Your task to perform on an android device: Open battery settings Image 0: 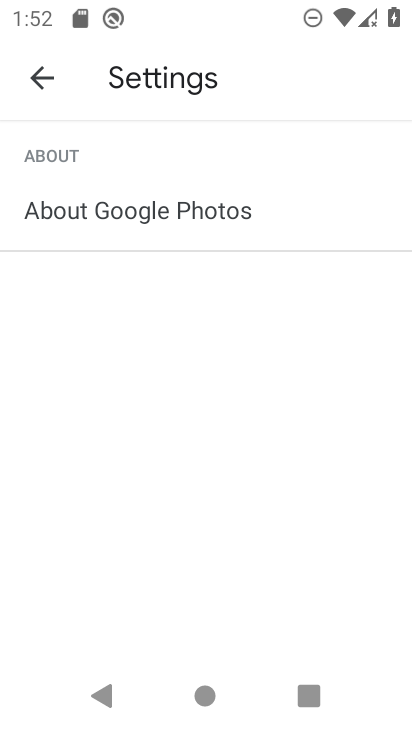
Step 0: drag from (372, 698) to (373, 329)
Your task to perform on an android device: Open battery settings Image 1: 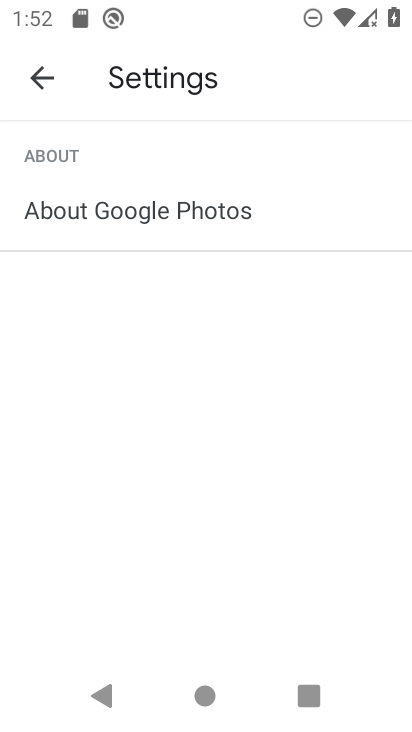
Step 1: click (26, 74)
Your task to perform on an android device: Open battery settings Image 2: 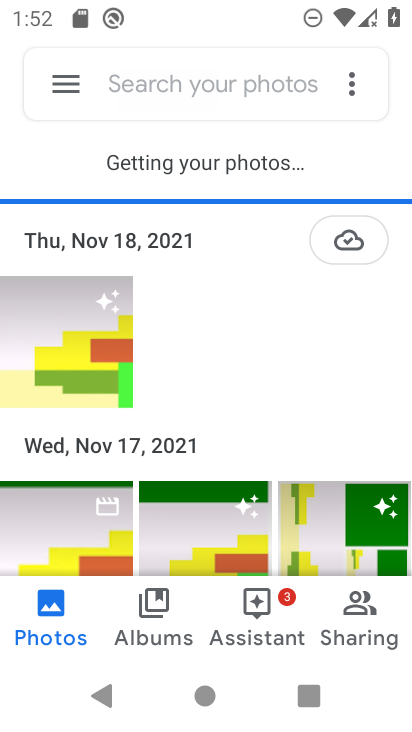
Step 2: press home button
Your task to perform on an android device: Open battery settings Image 3: 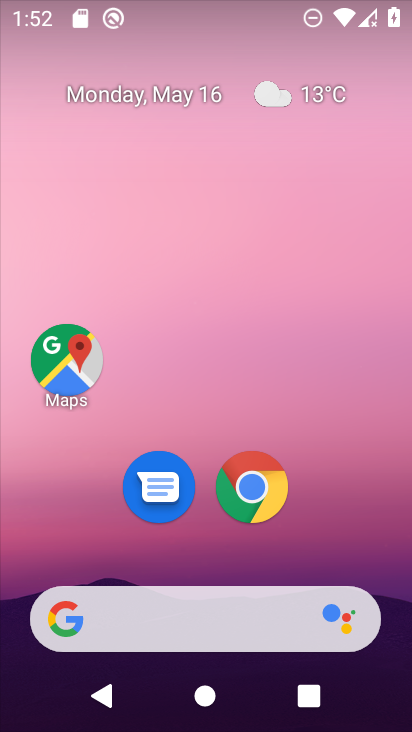
Step 3: drag from (378, 524) to (358, 208)
Your task to perform on an android device: Open battery settings Image 4: 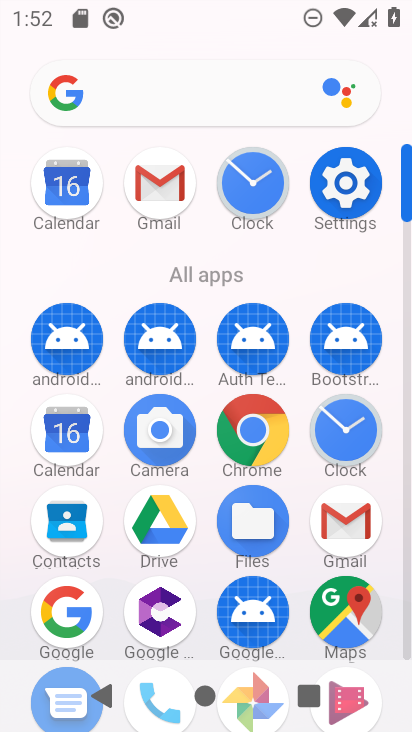
Step 4: click (321, 197)
Your task to perform on an android device: Open battery settings Image 5: 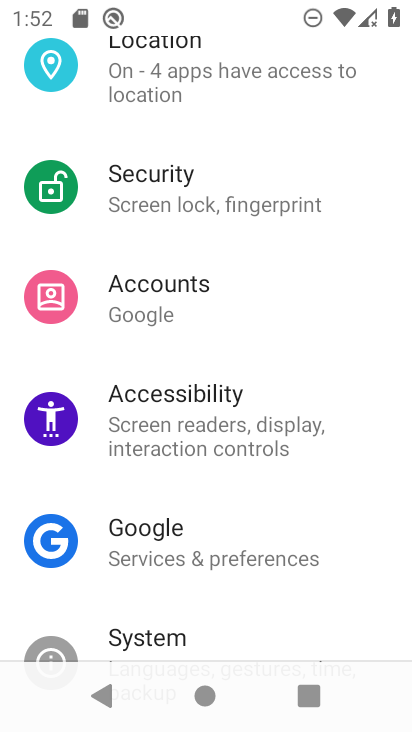
Step 5: drag from (252, 606) to (237, 331)
Your task to perform on an android device: Open battery settings Image 6: 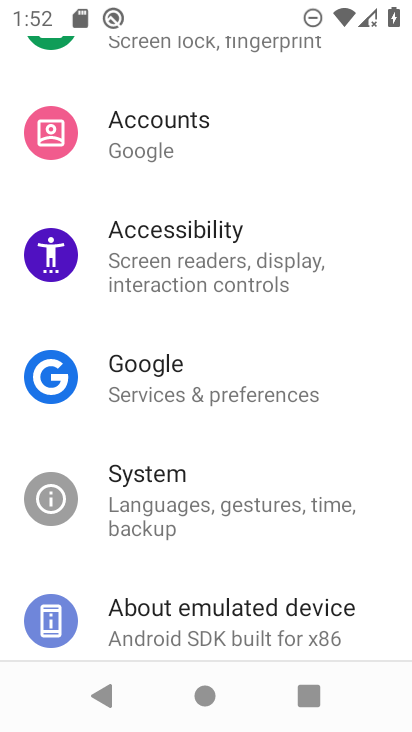
Step 6: drag from (231, 621) to (246, 367)
Your task to perform on an android device: Open battery settings Image 7: 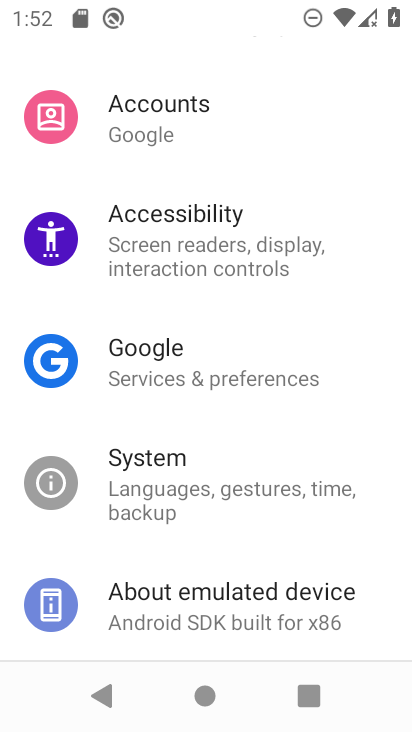
Step 7: drag from (223, 633) to (204, 422)
Your task to perform on an android device: Open battery settings Image 8: 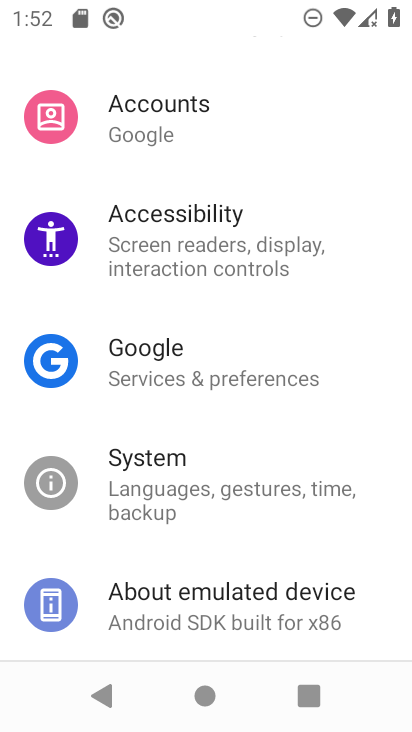
Step 8: drag from (208, 238) to (245, 572)
Your task to perform on an android device: Open battery settings Image 9: 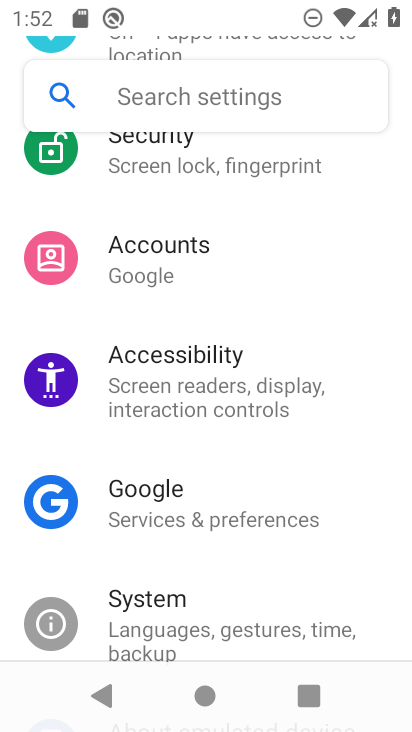
Step 9: drag from (257, 288) to (269, 509)
Your task to perform on an android device: Open battery settings Image 10: 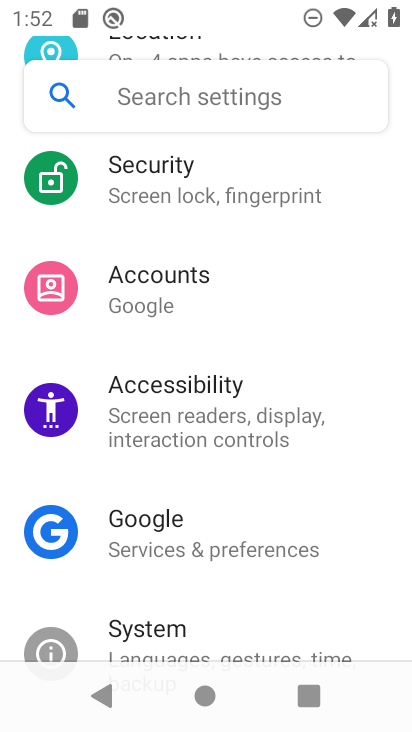
Step 10: drag from (226, 257) to (247, 483)
Your task to perform on an android device: Open battery settings Image 11: 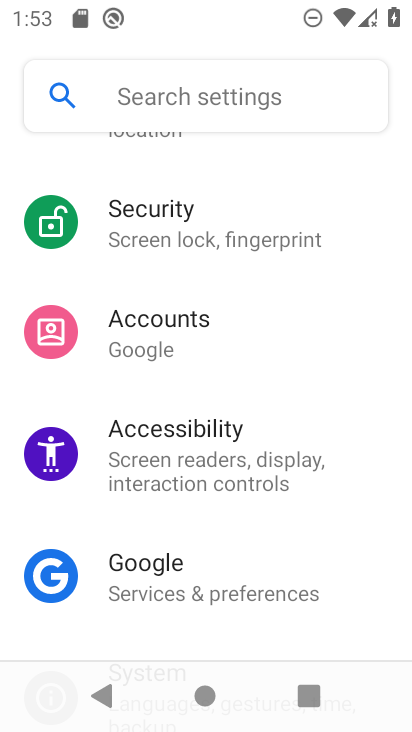
Step 11: drag from (289, 242) to (320, 507)
Your task to perform on an android device: Open battery settings Image 12: 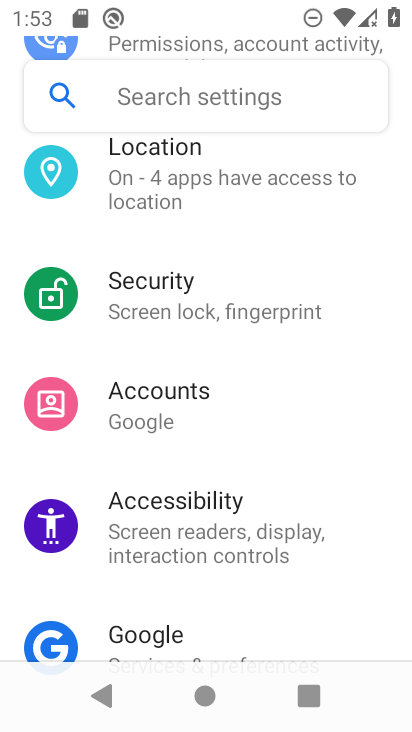
Step 12: drag from (286, 269) to (315, 460)
Your task to perform on an android device: Open battery settings Image 13: 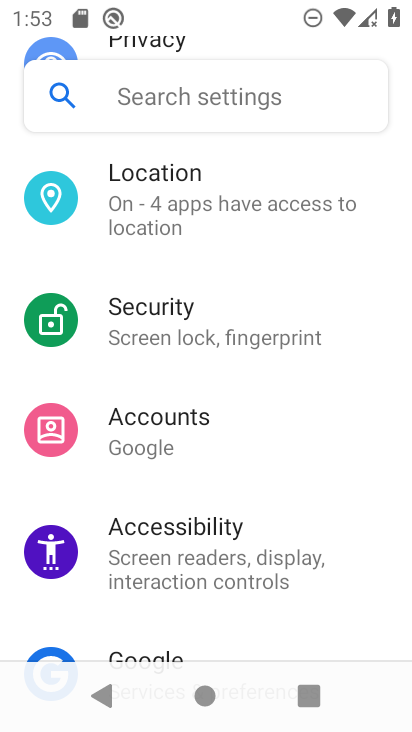
Step 13: drag from (338, 290) to (347, 449)
Your task to perform on an android device: Open battery settings Image 14: 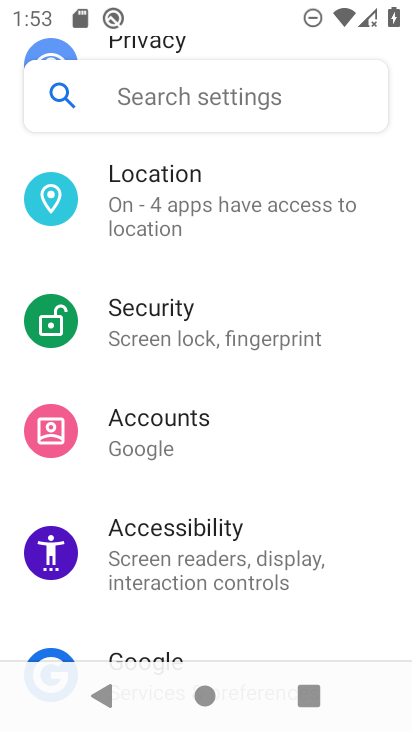
Step 14: drag from (380, 342) to (389, 595)
Your task to perform on an android device: Open battery settings Image 15: 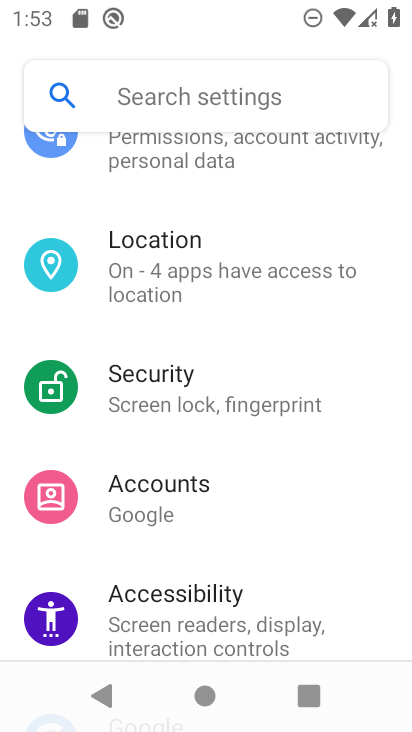
Step 15: drag from (387, 395) to (395, 545)
Your task to perform on an android device: Open battery settings Image 16: 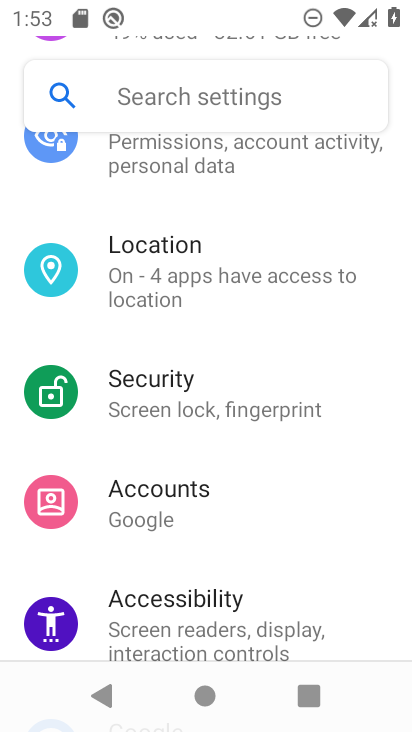
Step 16: click (390, 405)
Your task to perform on an android device: Open battery settings Image 17: 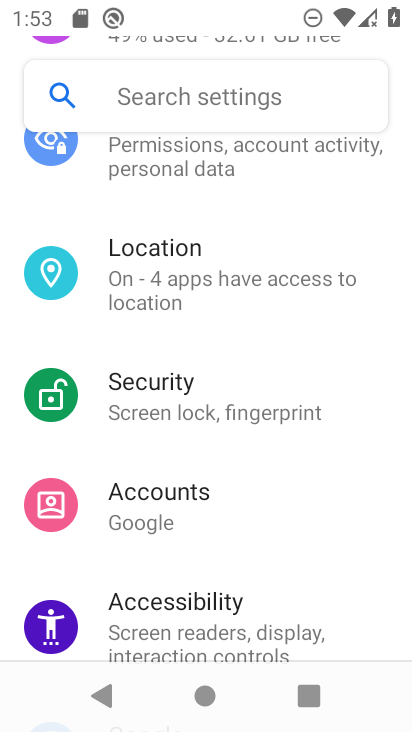
Step 17: click (402, 131)
Your task to perform on an android device: Open battery settings Image 18: 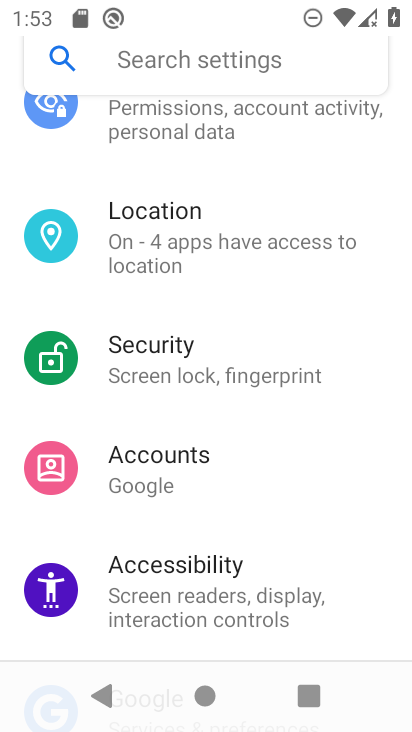
Step 18: click (411, 160)
Your task to perform on an android device: Open battery settings Image 19: 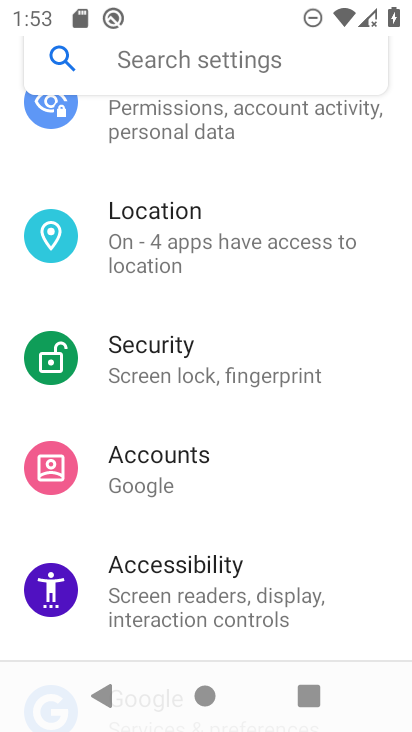
Step 19: drag from (395, 97) to (409, 385)
Your task to perform on an android device: Open battery settings Image 20: 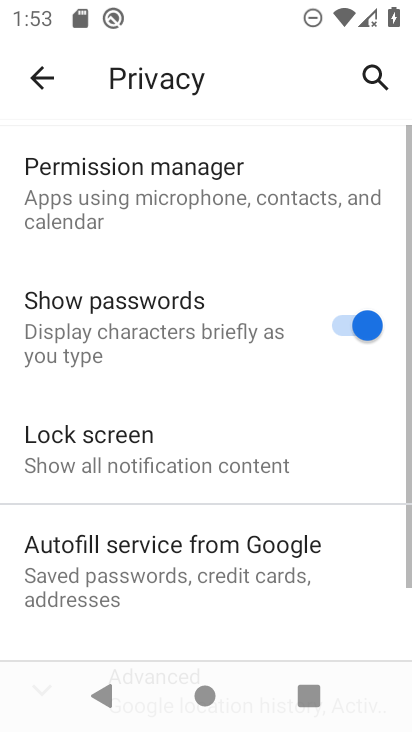
Step 20: click (28, 71)
Your task to perform on an android device: Open battery settings Image 21: 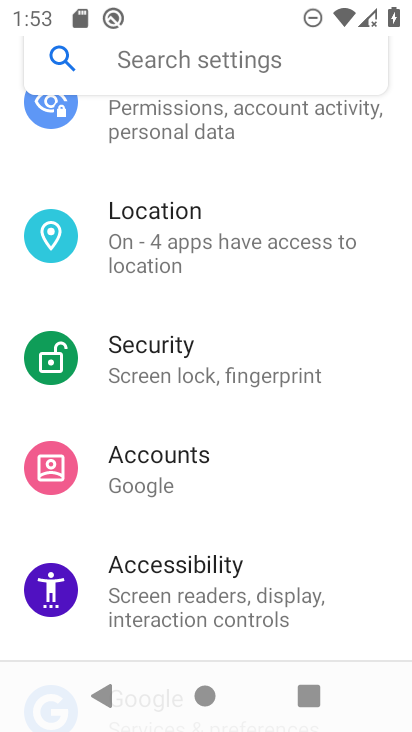
Step 21: drag from (386, 197) to (411, 501)
Your task to perform on an android device: Open battery settings Image 22: 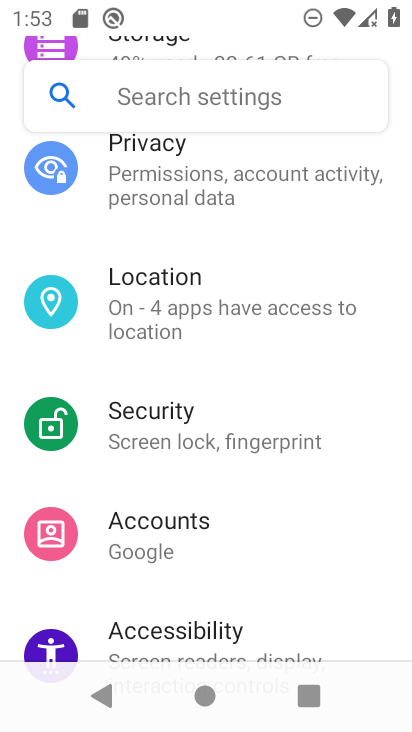
Step 22: drag from (395, 385) to (401, 551)
Your task to perform on an android device: Open battery settings Image 23: 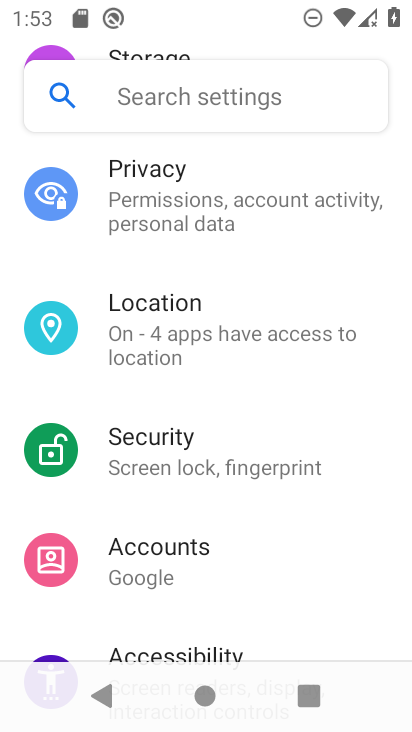
Step 23: drag from (387, 150) to (408, 448)
Your task to perform on an android device: Open battery settings Image 24: 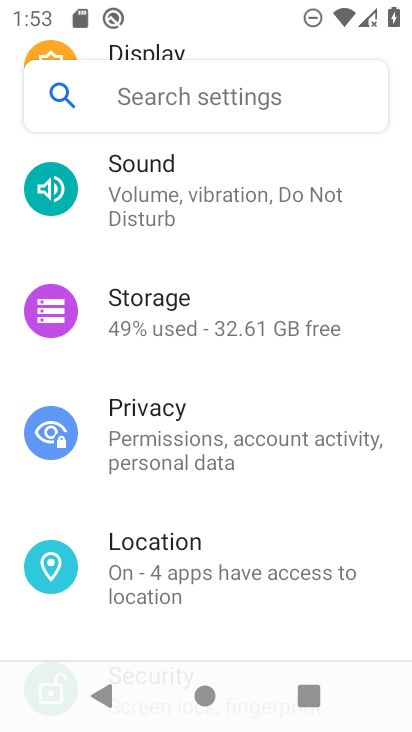
Step 24: drag from (359, 168) to (396, 535)
Your task to perform on an android device: Open battery settings Image 25: 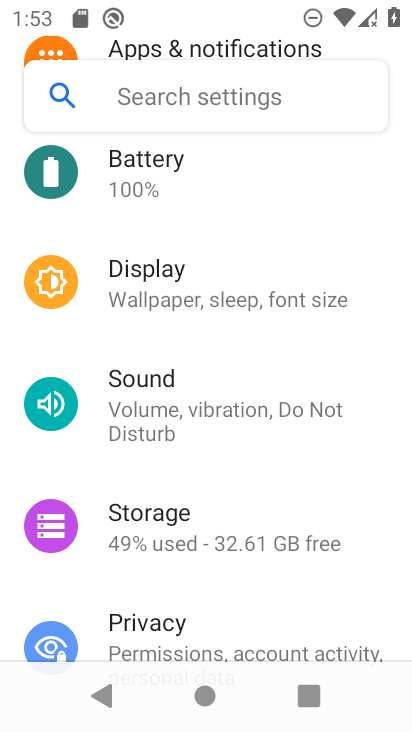
Step 25: click (145, 164)
Your task to perform on an android device: Open battery settings Image 26: 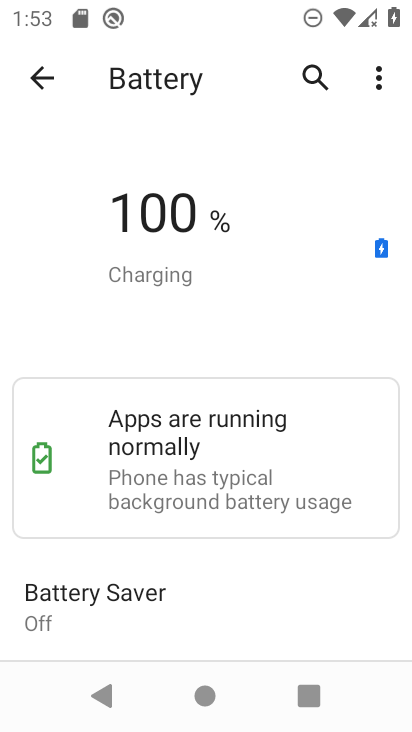
Step 26: click (377, 73)
Your task to perform on an android device: Open battery settings Image 27: 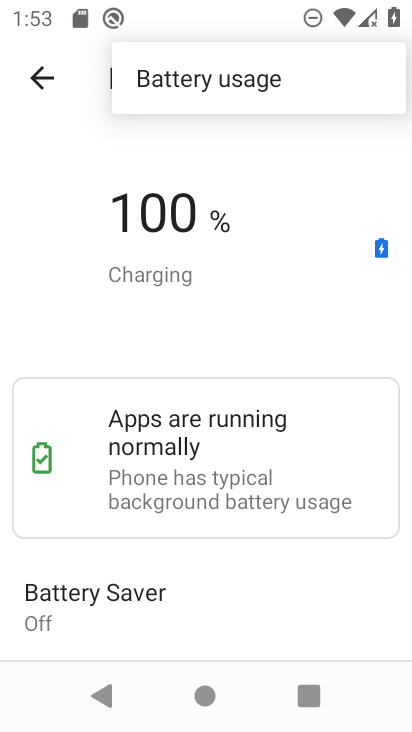
Step 27: click (144, 175)
Your task to perform on an android device: Open battery settings Image 28: 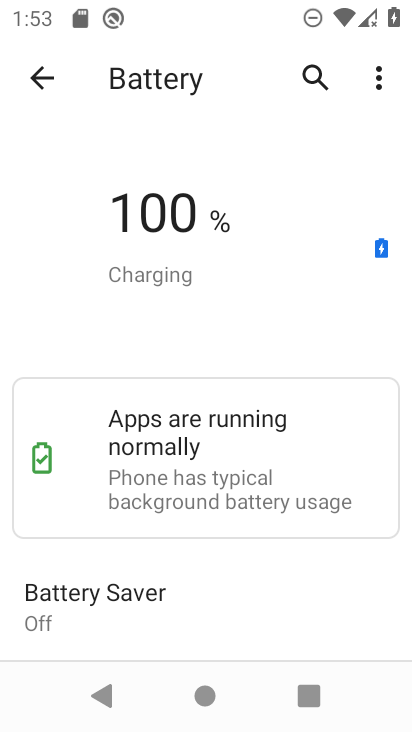
Step 28: task complete